Your task to perform on an android device: Find coffee shops on Maps Image 0: 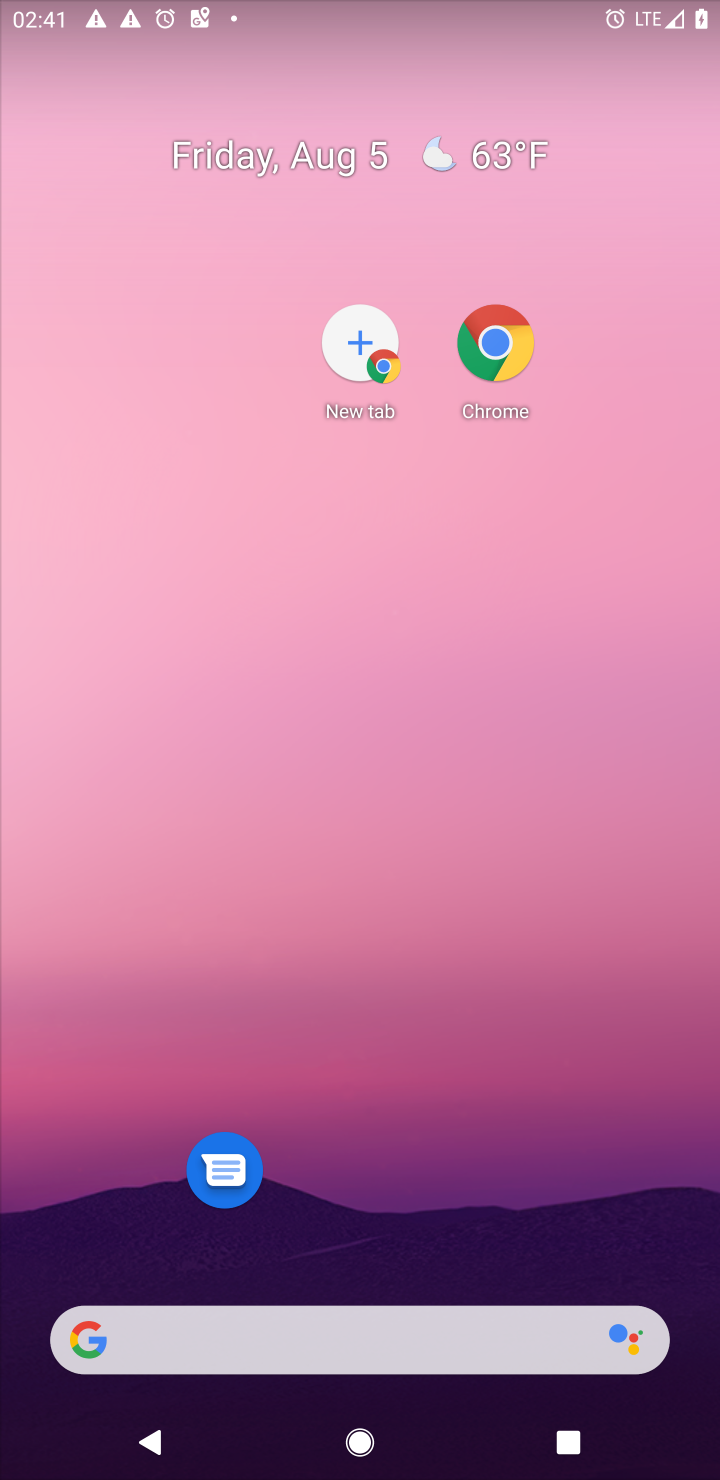
Step 0: drag from (401, 846) to (399, 0)
Your task to perform on an android device: Find coffee shops on Maps Image 1: 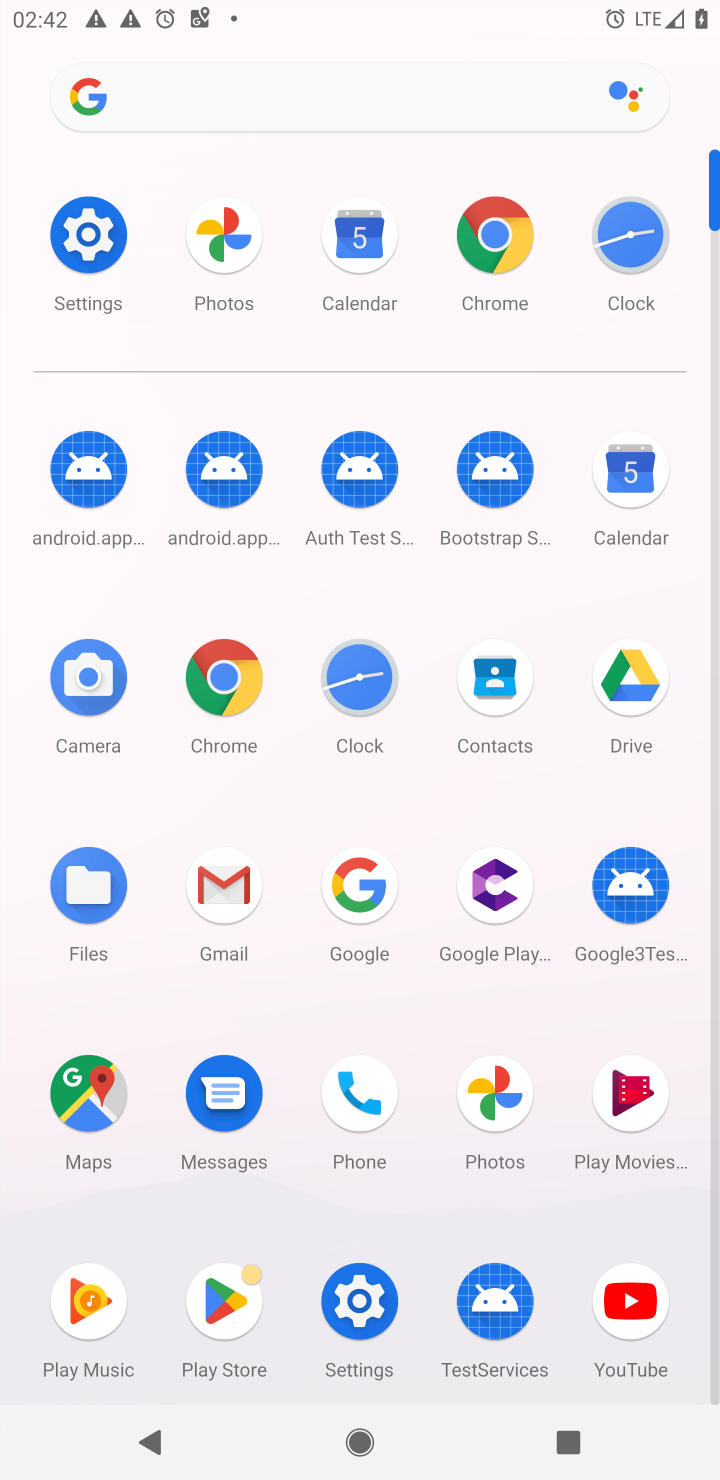
Step 1: click (115, 1106)
Your task to perform on an android device: Find coffee shops on Maps Image 2: 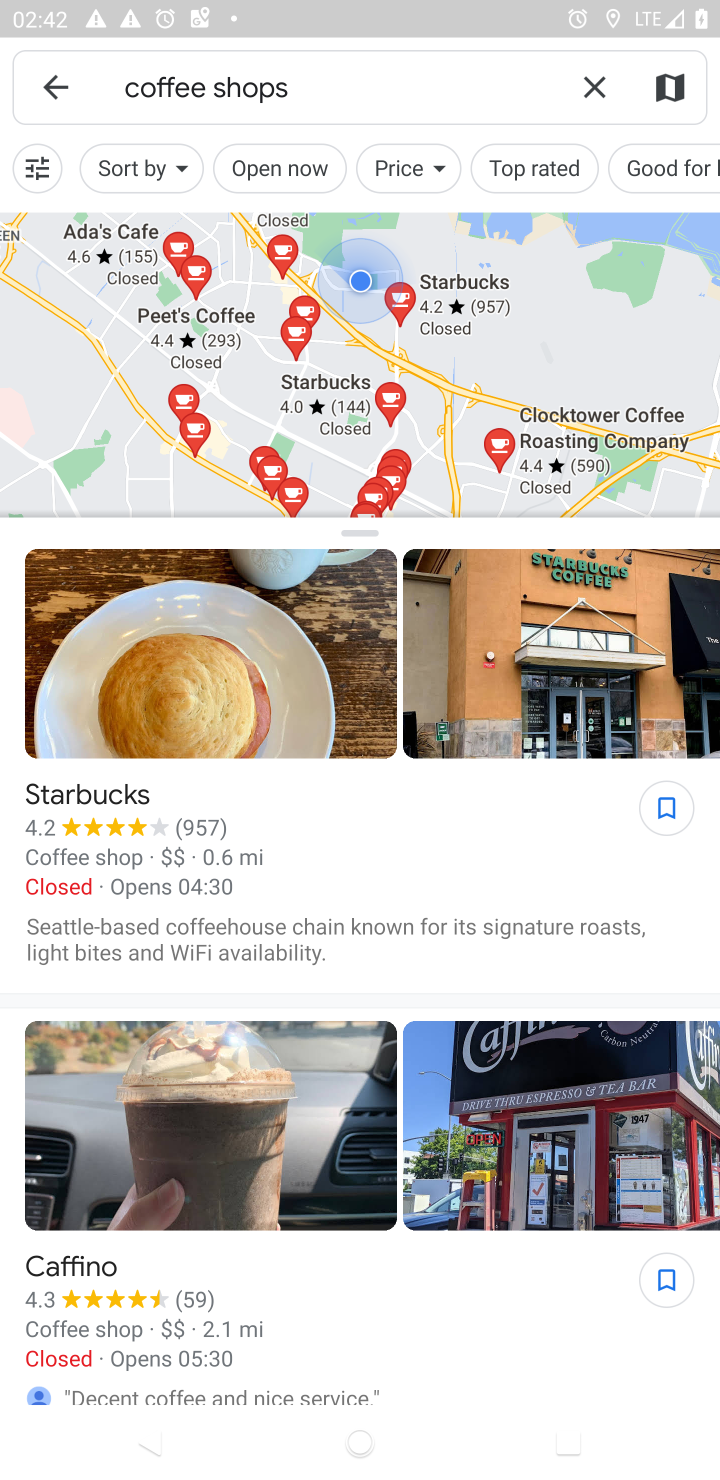
Step 2: task complete